Your task to perform on an android device: delete the emails in spam in the gmail app Image 0: 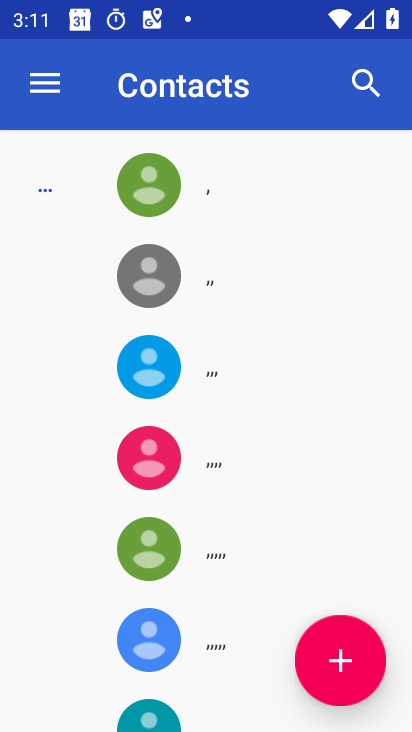
Step 0: press home button
Your task to perform on an android device: delete the emails in spam in the gmail app Image 1: 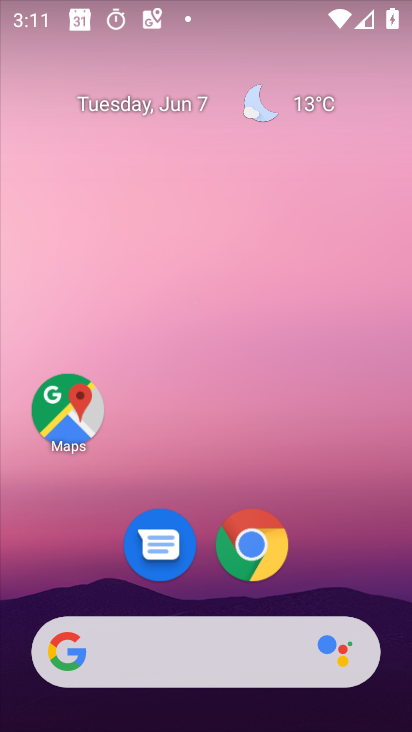
Step 1: drag from (353, 588) to (223, 27)
Your task to perform on an android device: delete the emails in spam in the gmail app Image 2: 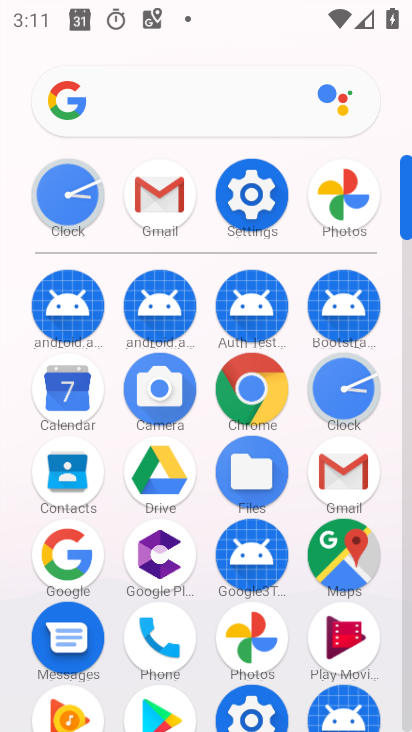
Step 2: click (331, 474)
Your task to perform on an android device: delete the emails in spam in the gmail app Image 3: 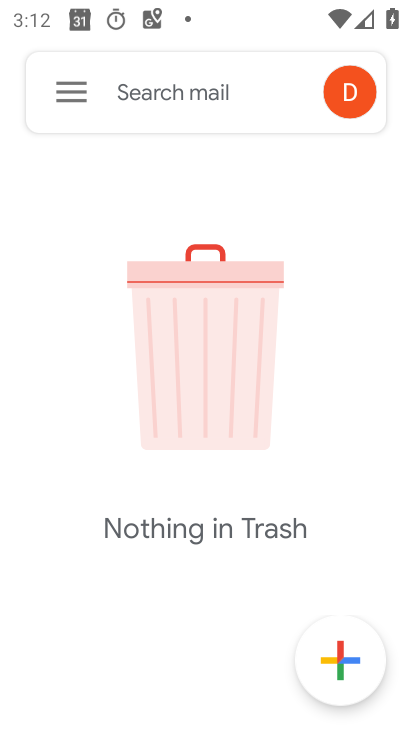
Step 3: click (76, 88)
Your task to perform on an android device: delete the emails in spam in the gmail app Image 4: 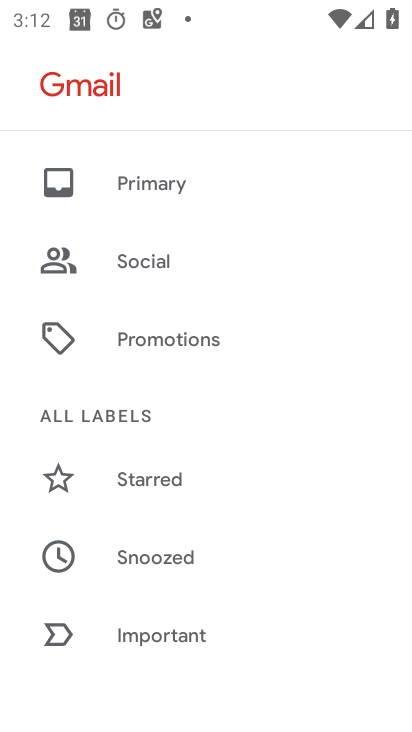
Step 4: drag from (226, 569) to (226, 38)
Your task to perform on an android device: delete the emails in spam in the gmail app Image 5: 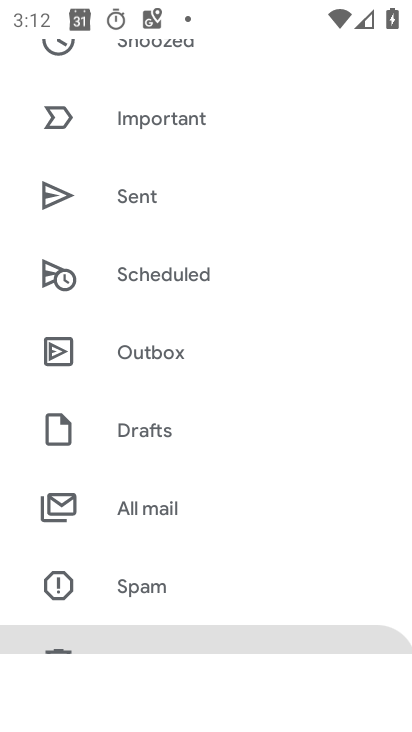
Step 5: click (196, 589)
Your task to perform on an android device: delete the emails in spam in the gmail app Image 6: 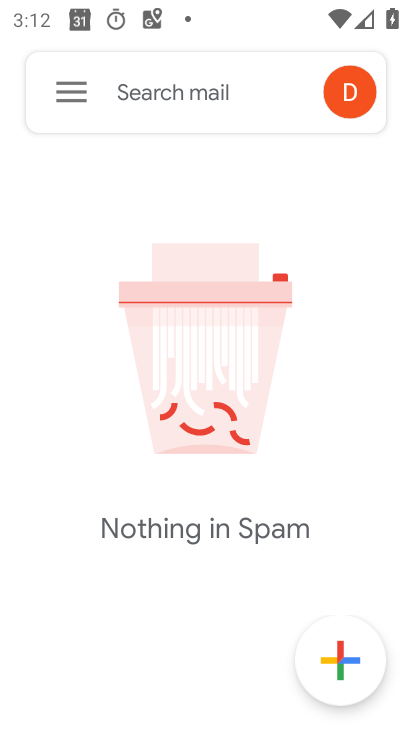
Step 6: task complete